Your task to perform on an android device: check out phone information Image 0: 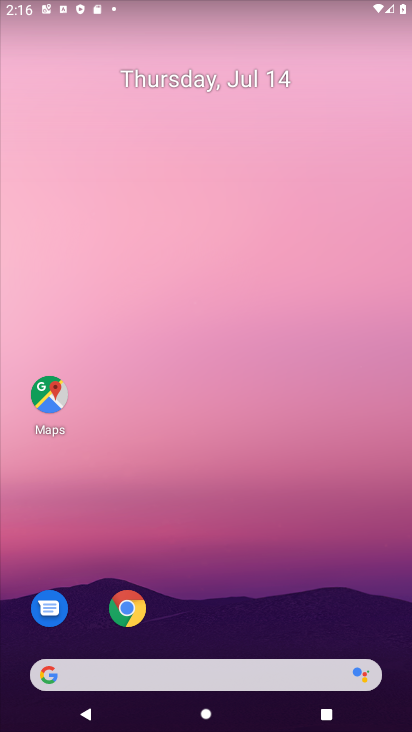
Step 0: drag from (353, 629) to (298, 121)
Your task to perform on an android device: check out phone information Image 1: 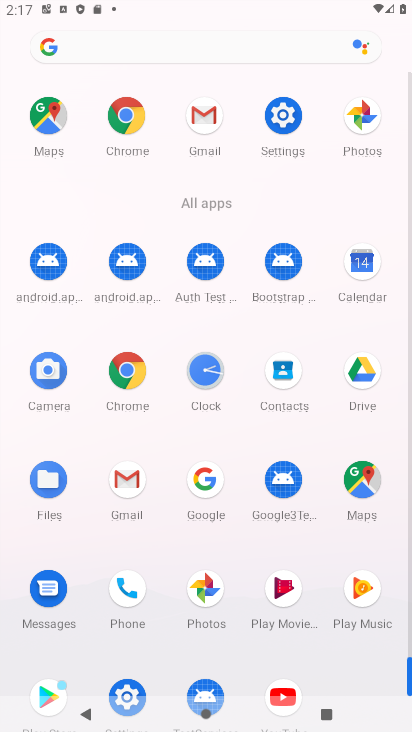
Step 1: click (409, 647)
Your task to perform on an android device: check out phone information Image 2: 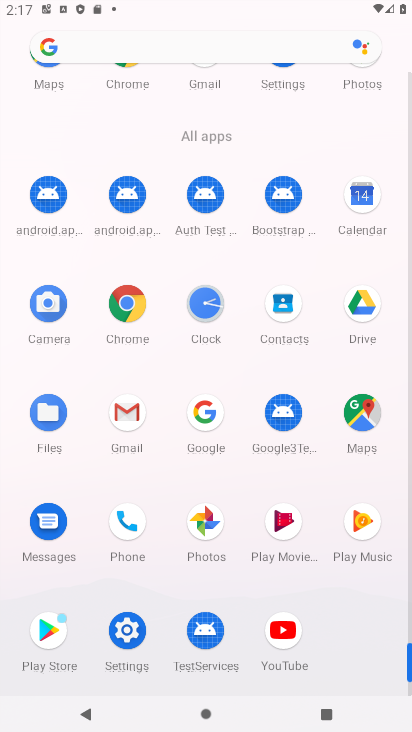
Step 2: click (126, 631)
Your task to perform on an android device: check out phone information Image 3: 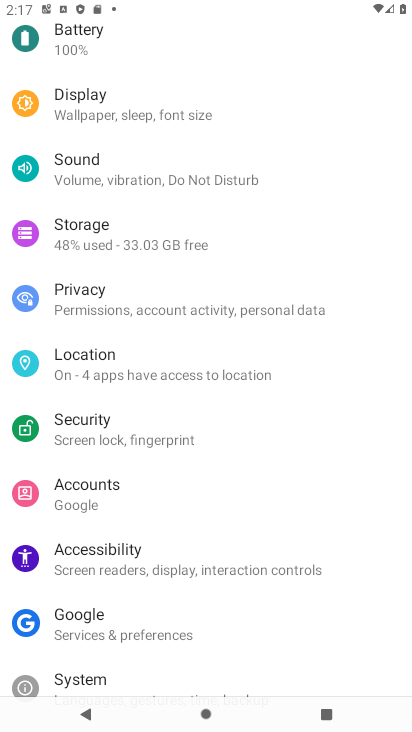
Step 3: drag from (348, 641) to (337, 257)
Your task to perform on an android device: check out phone information Image 4: 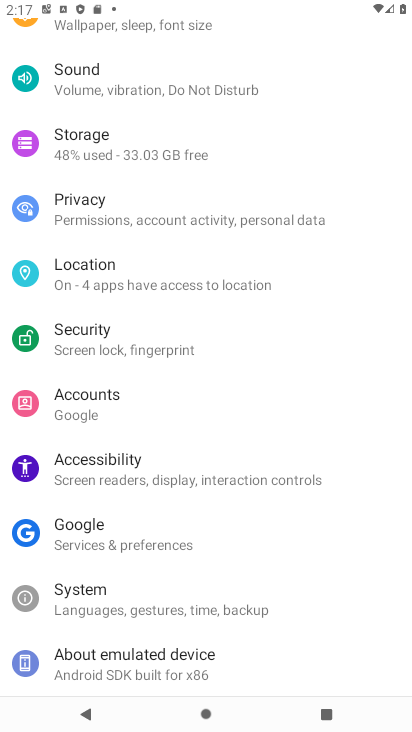
Step 4: click (105, 665)
Your task to perform on an android device: check out phone information Image 5: 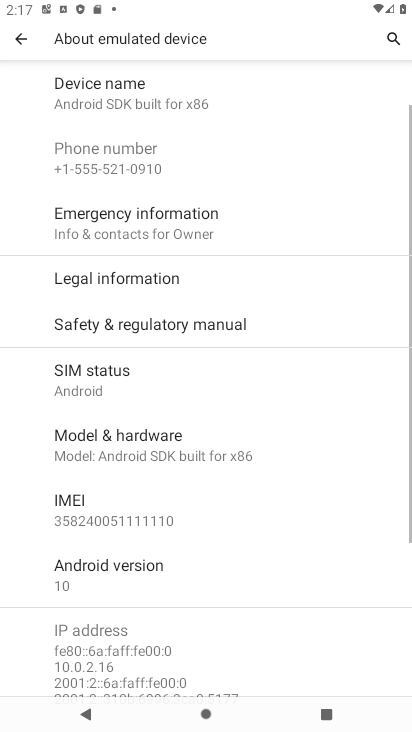
Step 5: task complete